Your task to perform on an android device: find snoozed emails in the gmail app Image 0: 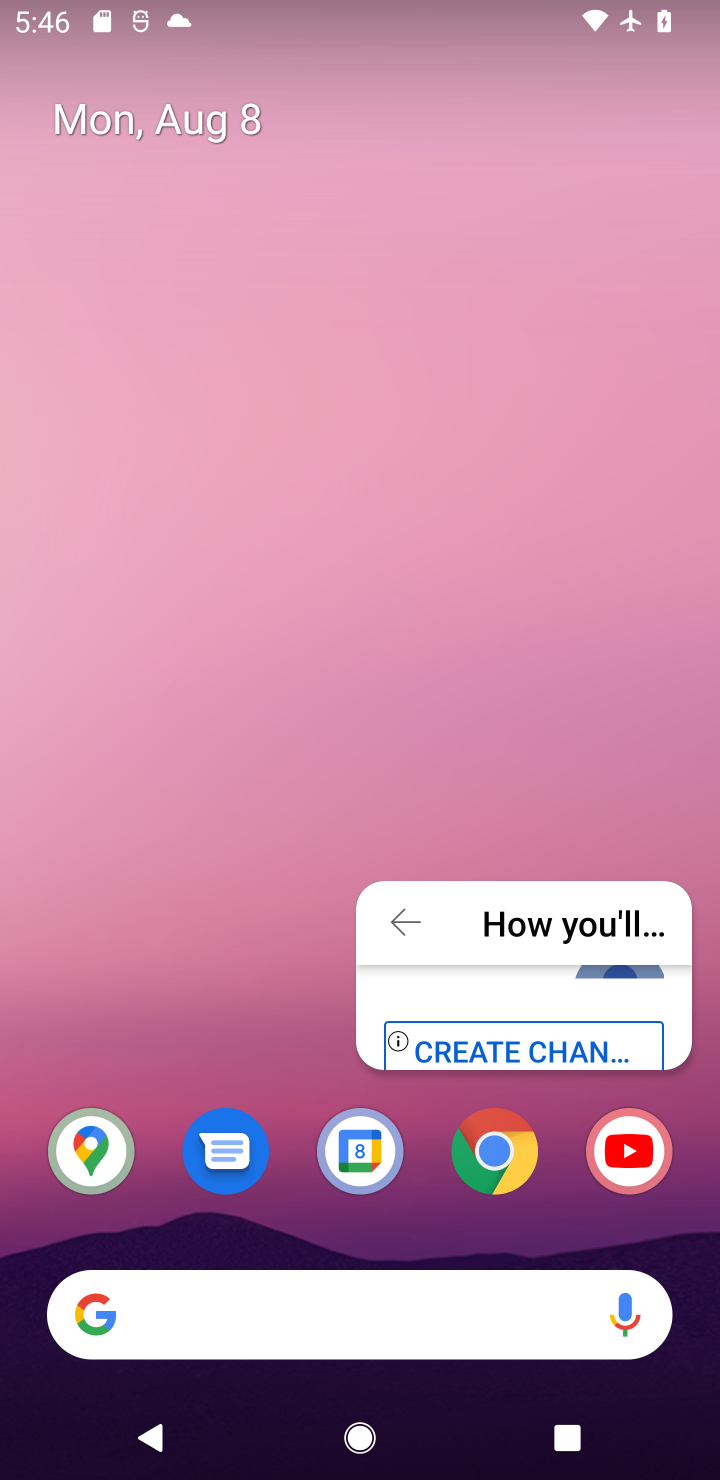
Step 0: drag from (261, 1053) to (147, 322)
Your task to perform on an android device: find snoozed emails in the gmail app Image 1: 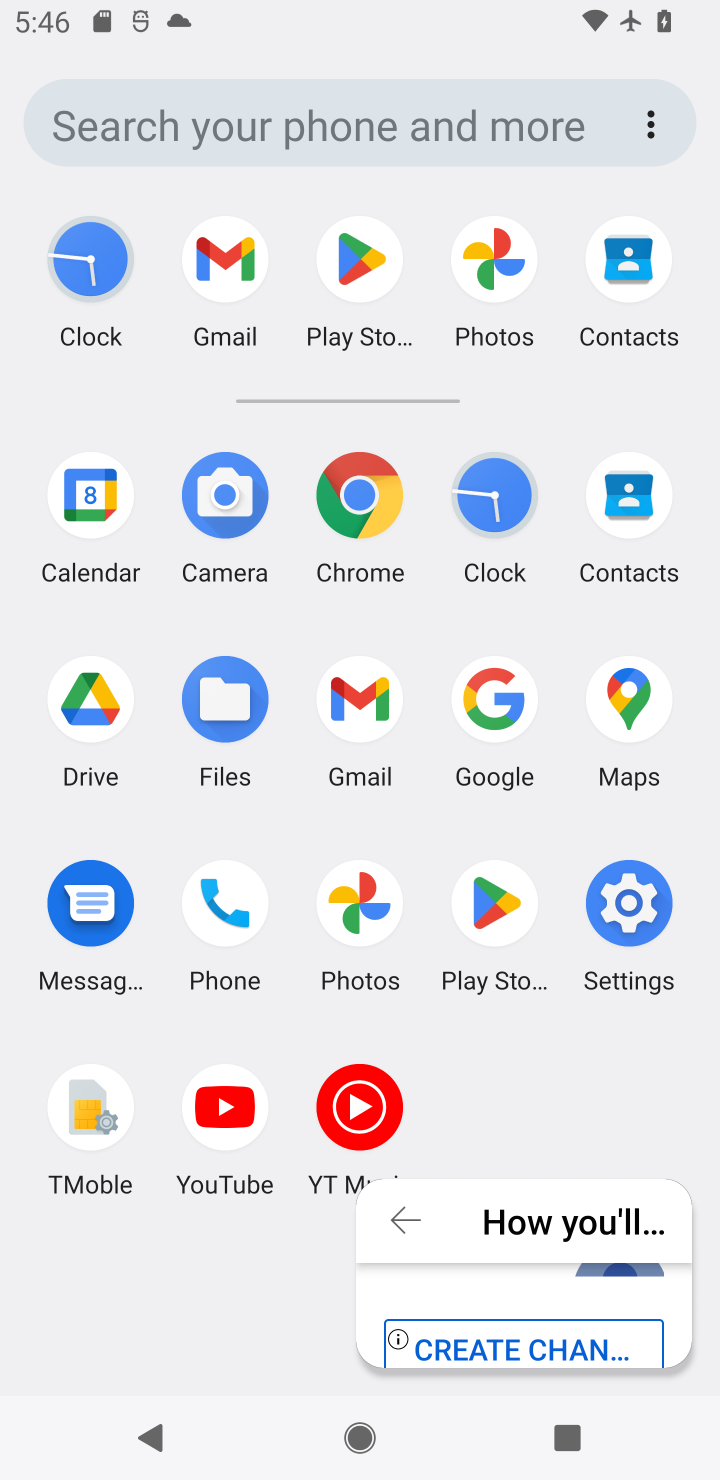
Step 1: click (365, 684)
Your task to perform on an android device: find snoozed emails in the gmail app Image 2: 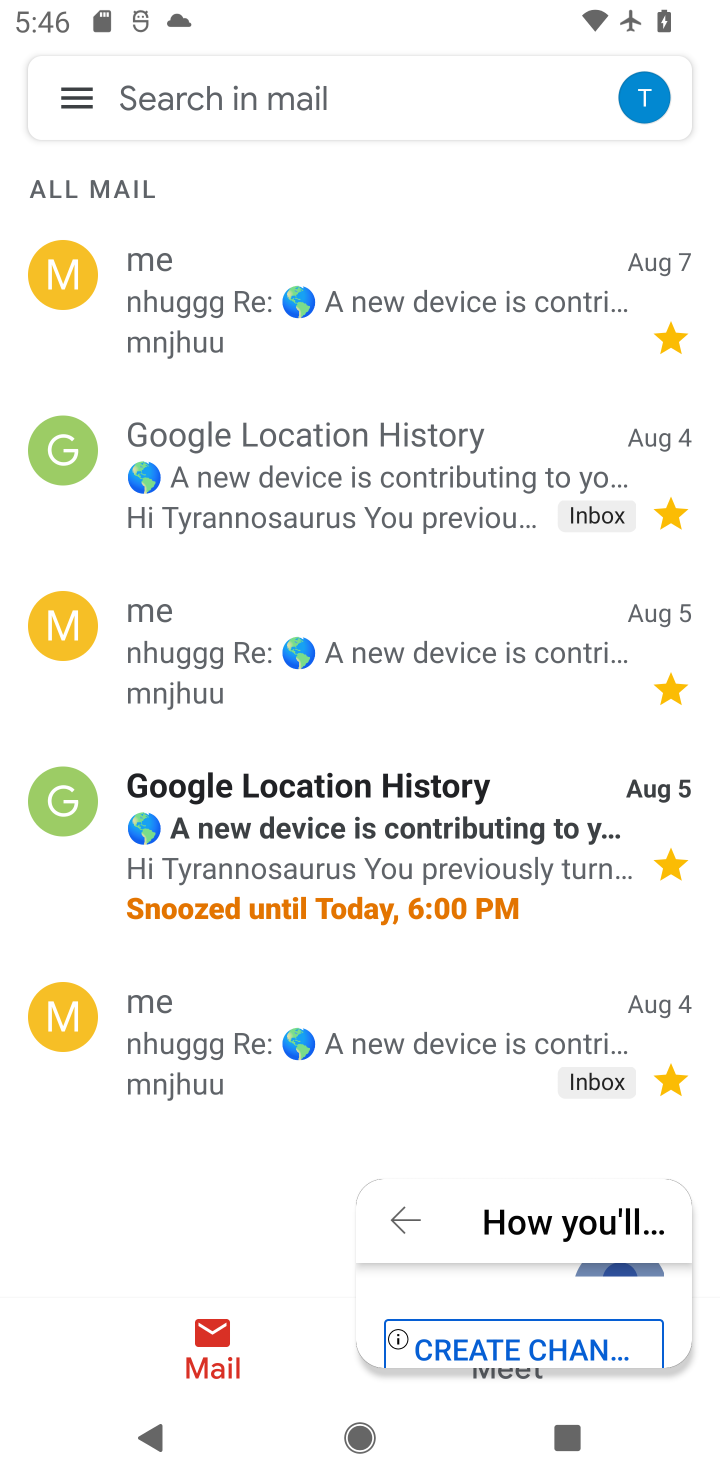
Step 2: click (70, 85)
Your task to perform on an android device: find snoozed emails in the gmail app Image 3: 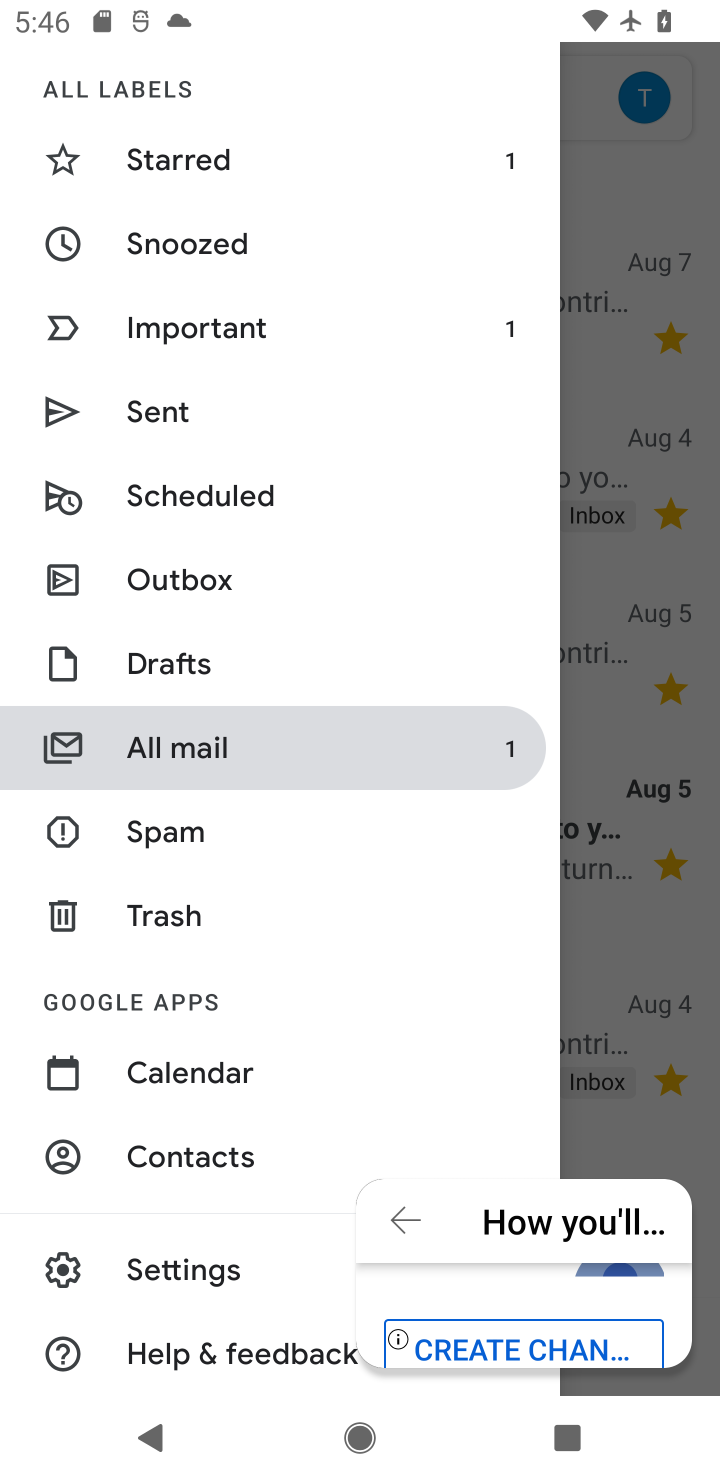
Step 3: click (240, 249)
Your task to perform on an android device: find snoozed emails in the gmail app Image 4: 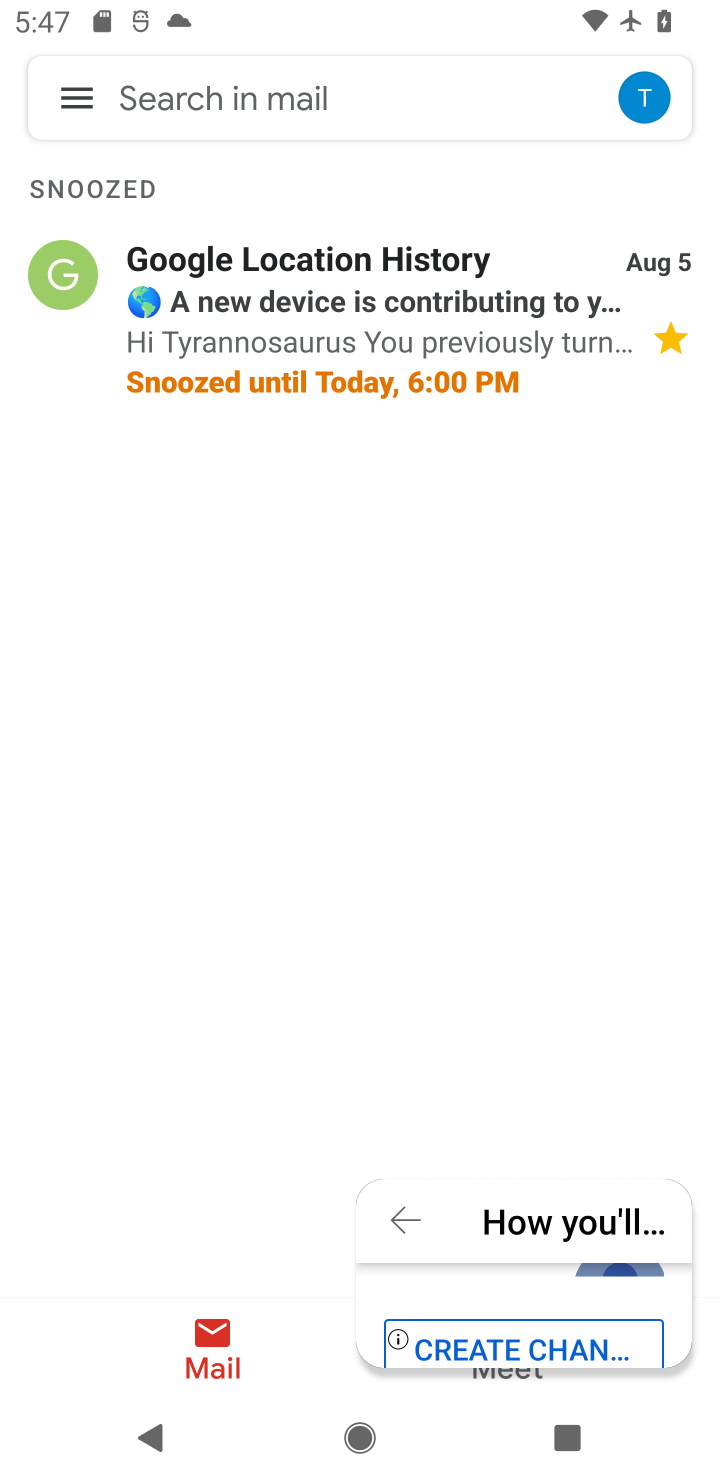
Step 4: task complete